Your task to perform on an android device: Empty the shopping cart on ebay.com. Add "sony triple a" to the cart on ebay.com Image 0: 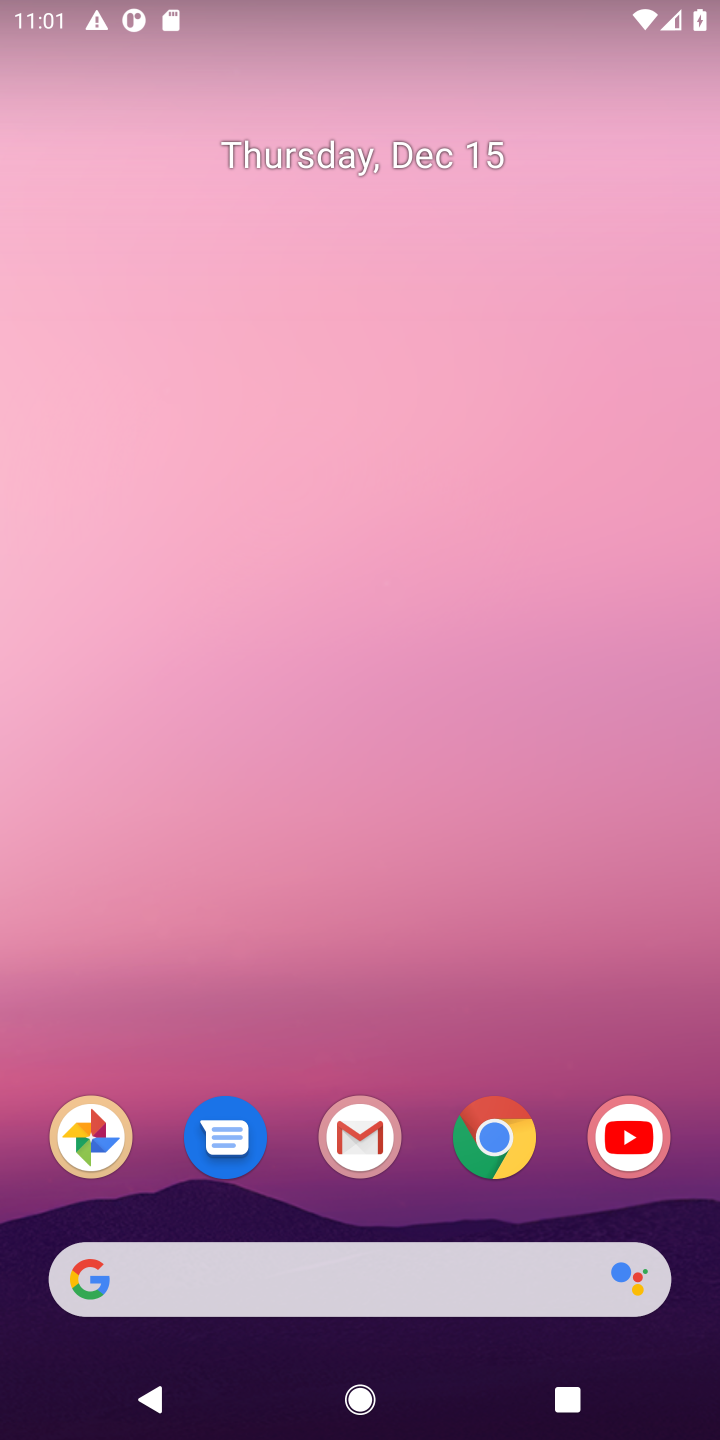
Step 0: drag from (311, 1134) to (215, 612)
Your task to perform on an android device: Empty the shopping cart on ebay.com. Add "sony triple a" to the cart on ebay.com Image 1: 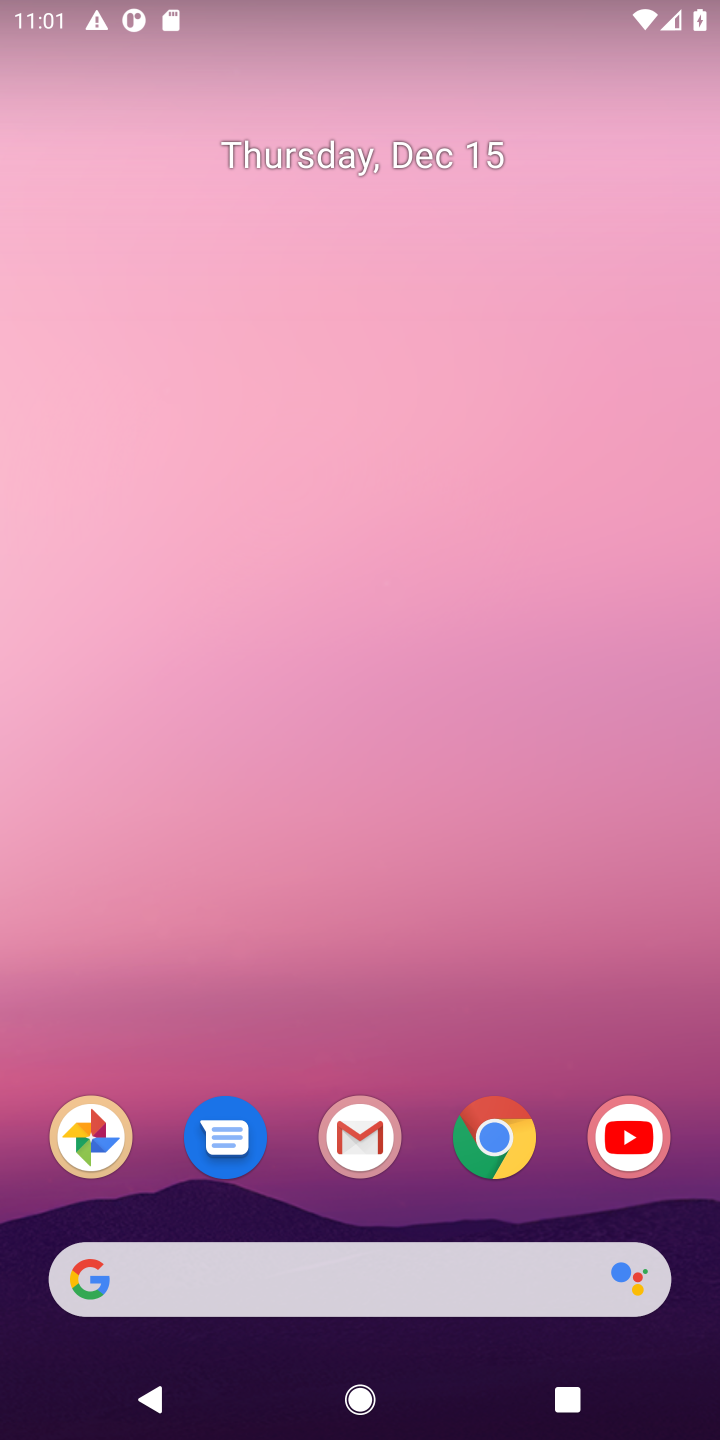
Step 1: drag from (367, 1238) to (338, 457)
Your task to perform on an android device: Empty the shopping cart on ebay.com. Add "sony triple a" to the cart on ebay.com Image 2: 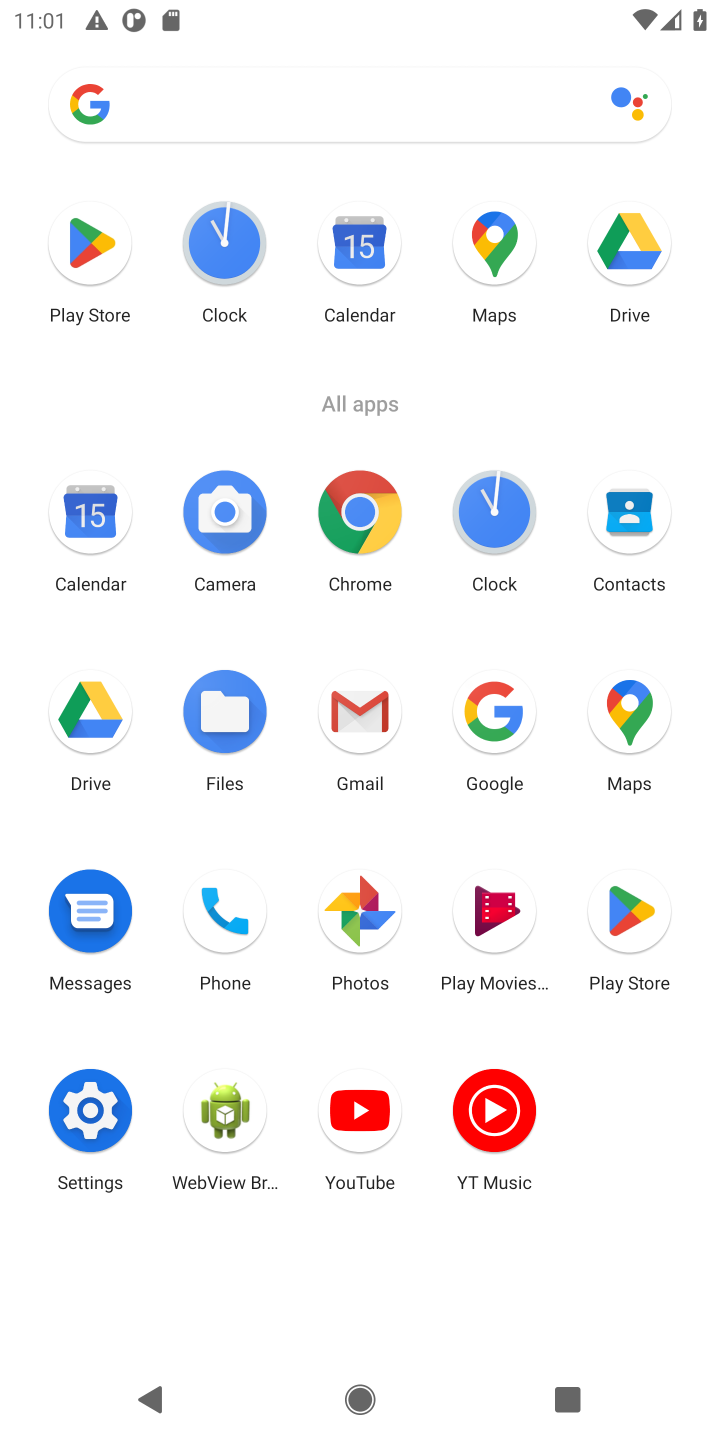
Step 2: click (491, 725)
Your task to perform on an android device: Empty the shopping cart on ebay.com. Add "sony triple a" to the cart on ebay.com Image 3: 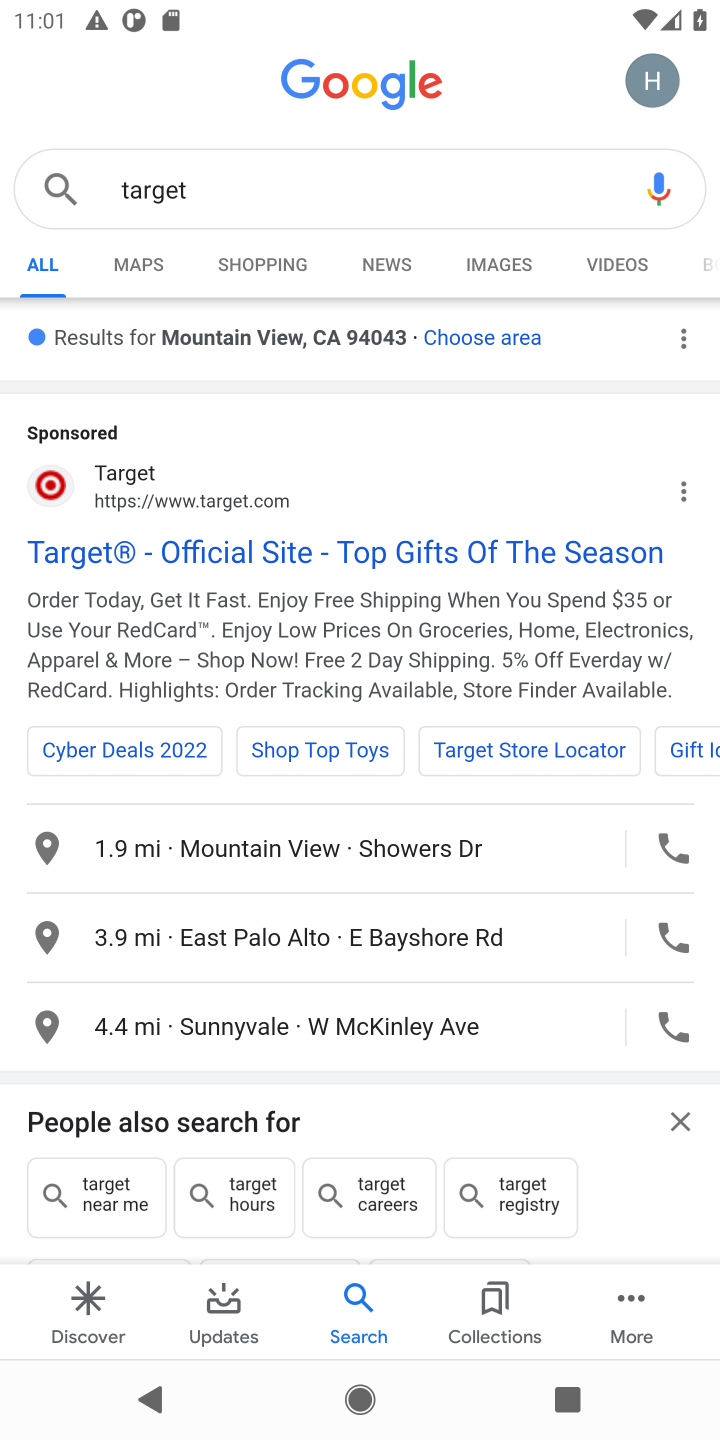
Step 3: click (159, 199)
Your task to perform on an android device: Empty the shopping cart on ebay.com. Add "sony triple a" to the cart on ebay.com Image 4: 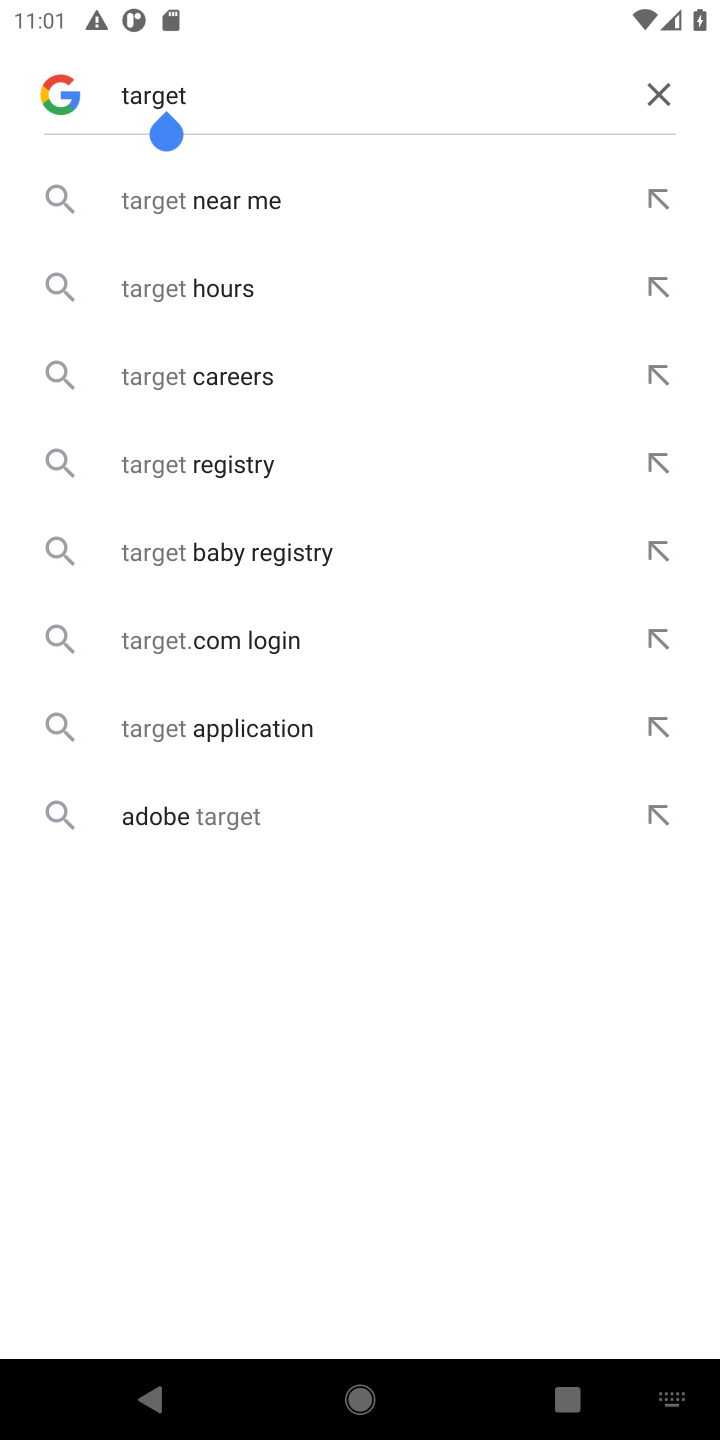
Step 4: click (662, 99)
Your task to perform on an android device: Empty the shopping cart on ebay.com. Add "sony triple a" to the cart on ebay.com Image 5: 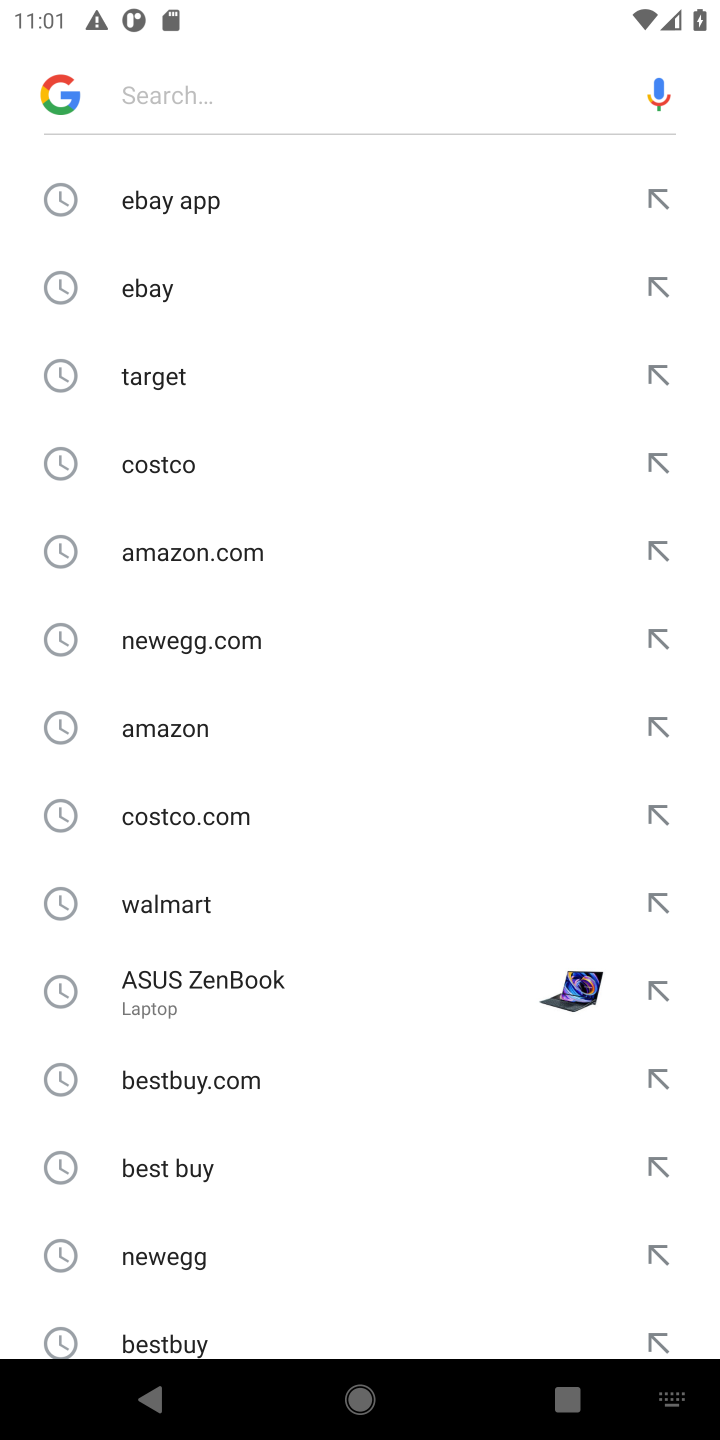
Step 5: click (146, 291)
Your task to perform on an android device: Empty the shopping cart on ebay.com. Add "sony triple a" to the cart on ebay.com Image 6: 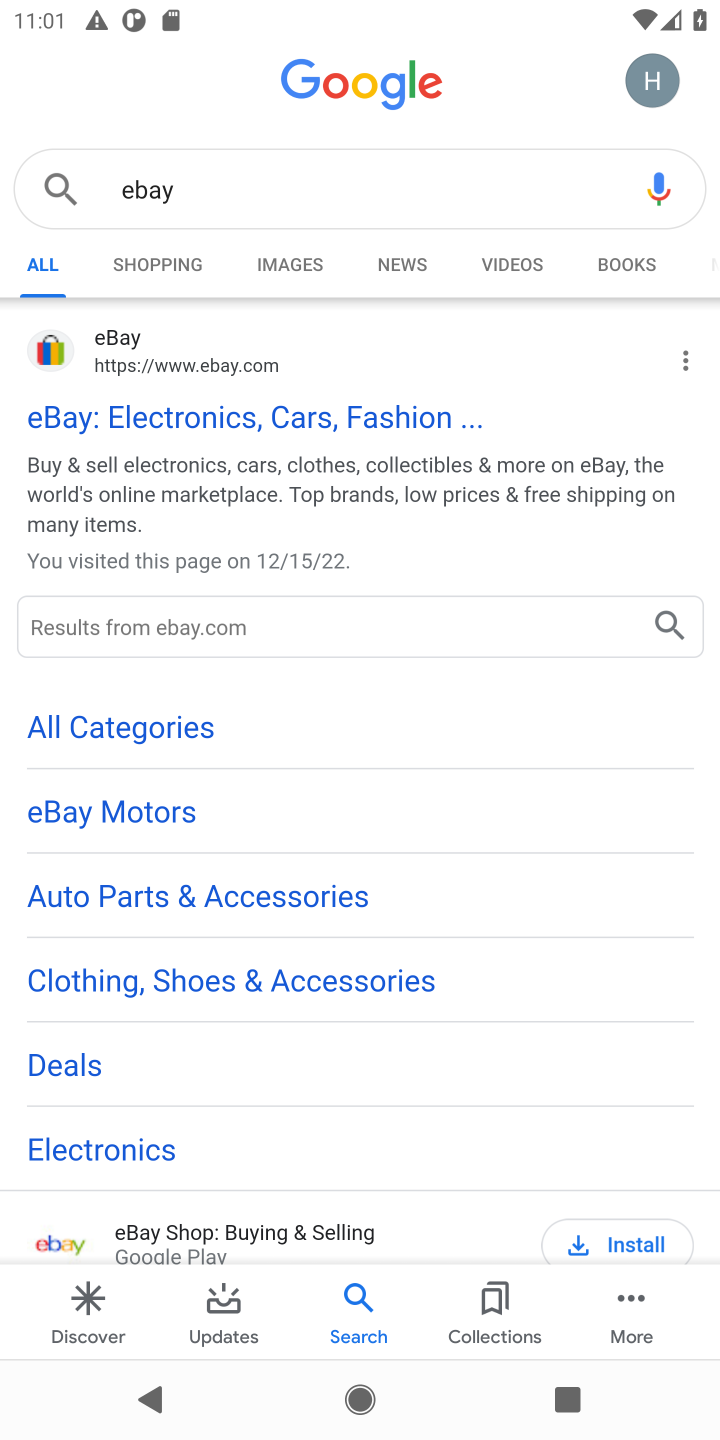
Step 6: click (133, 420)
Your task to perform on an android device: Empty the shopping cart on ebay.com. Add "sony triple a" to the cart on ebay.com Image 7: 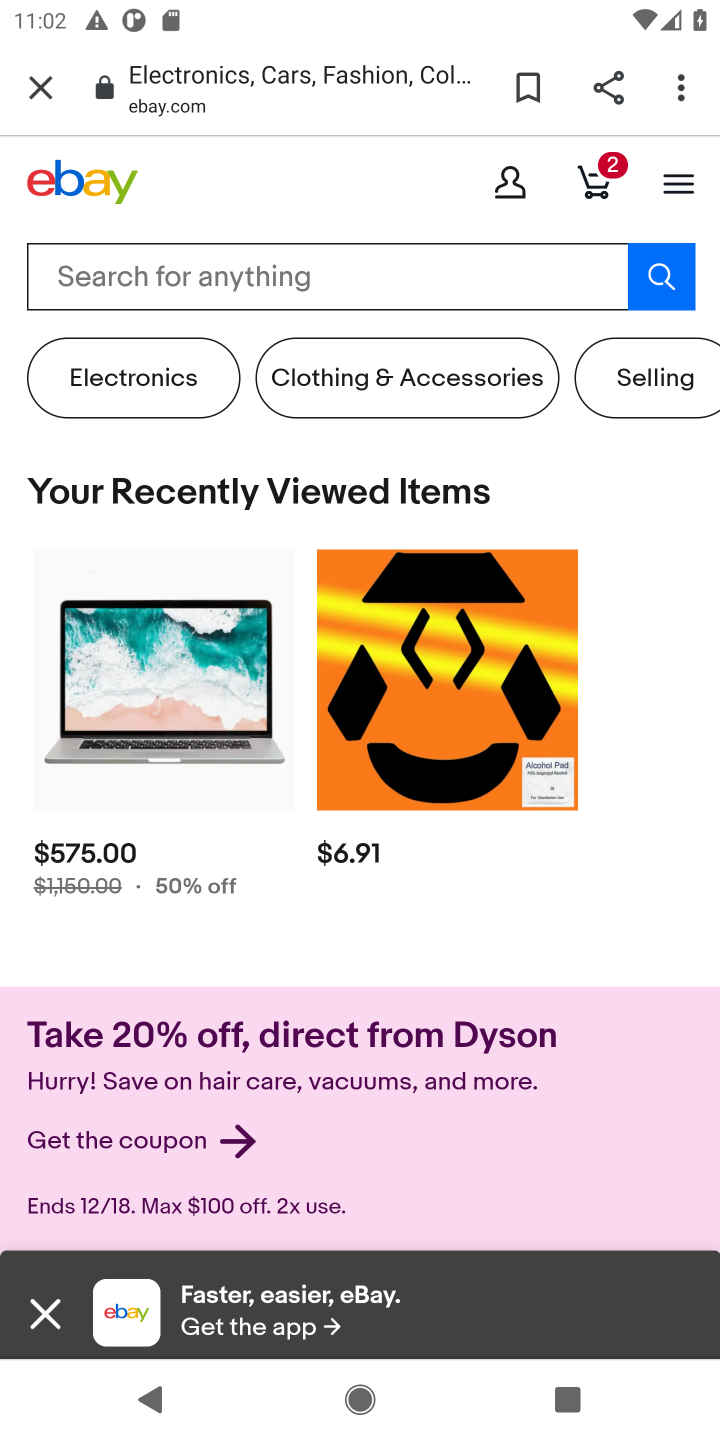
Step 7: click (115, 277)
Your task to perform on an android device: Empty the shopping cart on ebay.com. Add "sony triple a" to the cart on ebay.com Image 8: 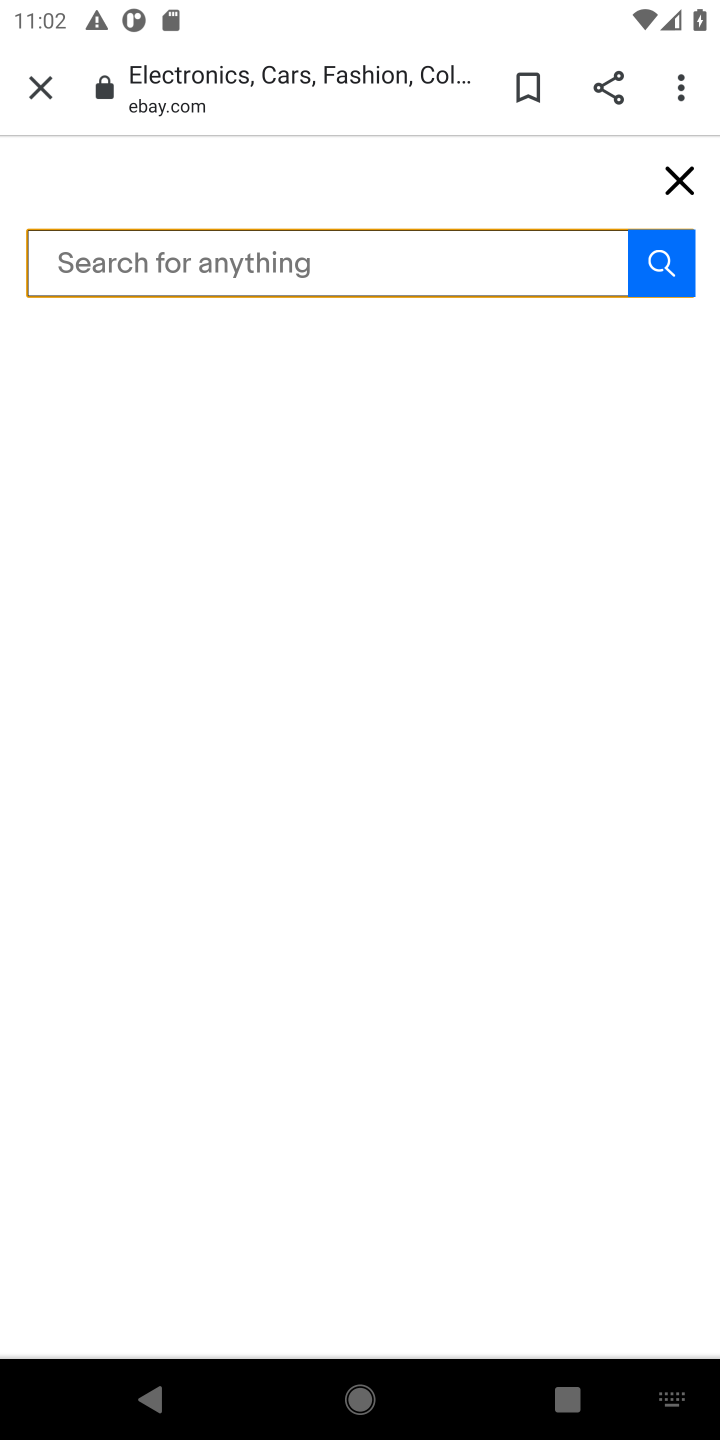
Step 8: type "sony triple a"
Your task to perform on an android device: Empty the shopping cart on ebay.com. Add "sony triple a" to the cart on ebay.com Image 9: 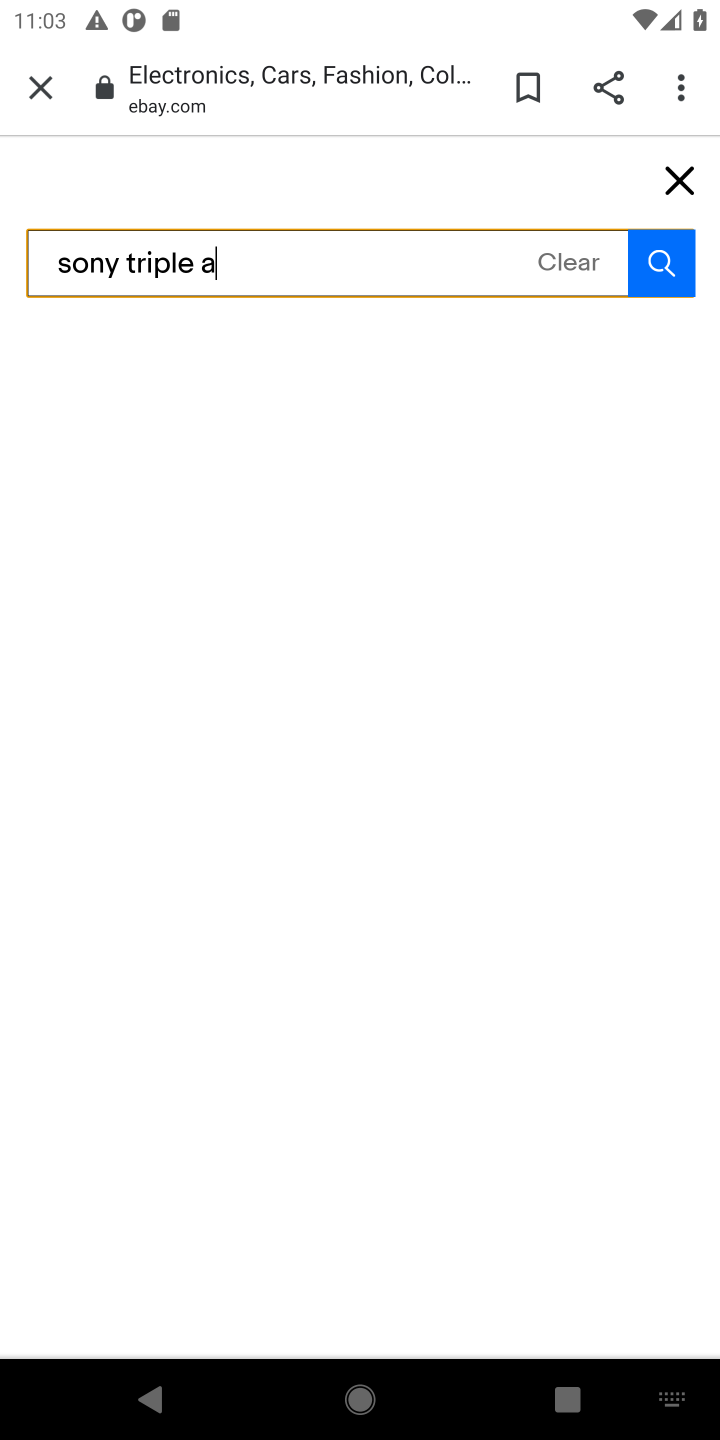
Step 9: click (660, 255)
Your task to perform on an android device: Empty the shopping cart on ebay.com. Add "sony triple a" to the cart on ebay.com Image 10: 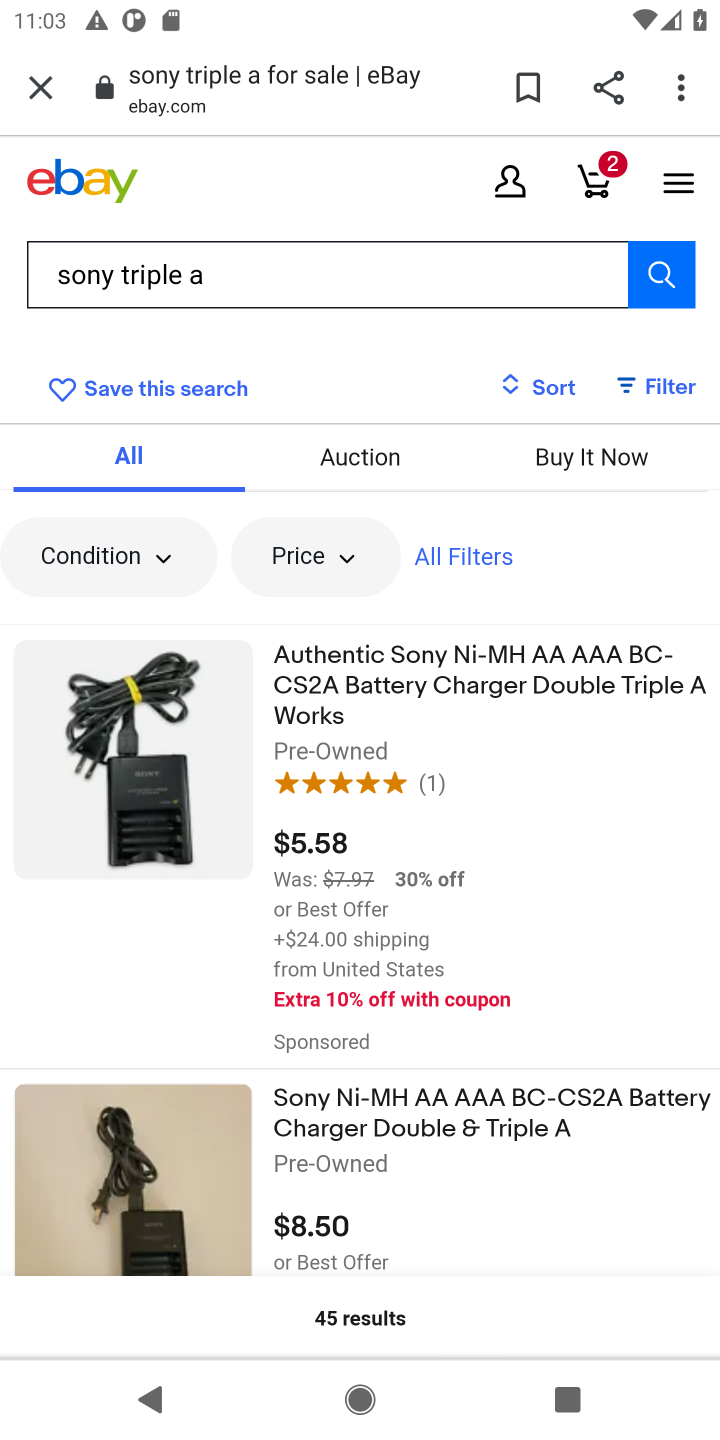
Step 10: click (321, 693)
Your task to perform on an android device: Empty the shopping cart on ebay.com. Add "sony triple a" to the cart on ebay.com Image 11: 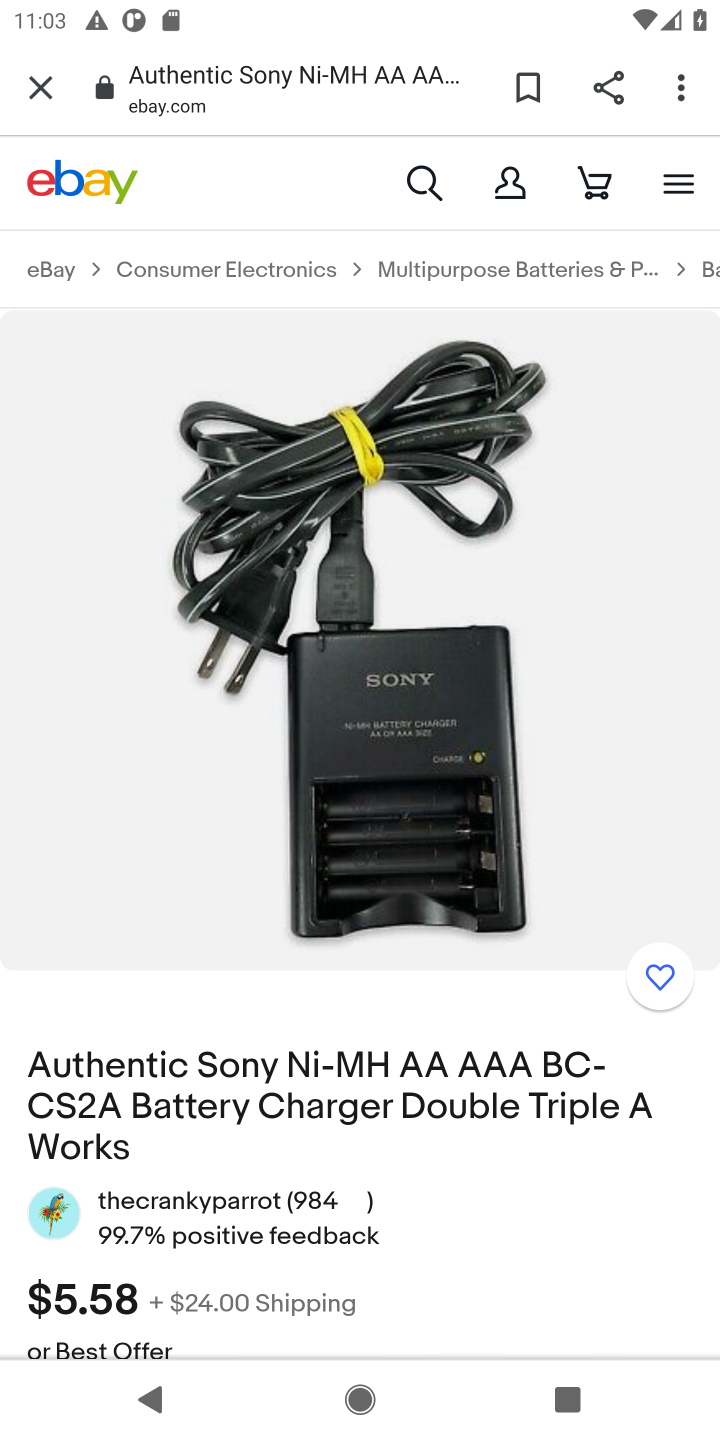
Step 11: drag from (445, 1195) to (371, 615)
Your task to perform on an android device: Empty the shopping cart on ebay.com. Add "sony triple a" to the cart on ebay.com Image 12: 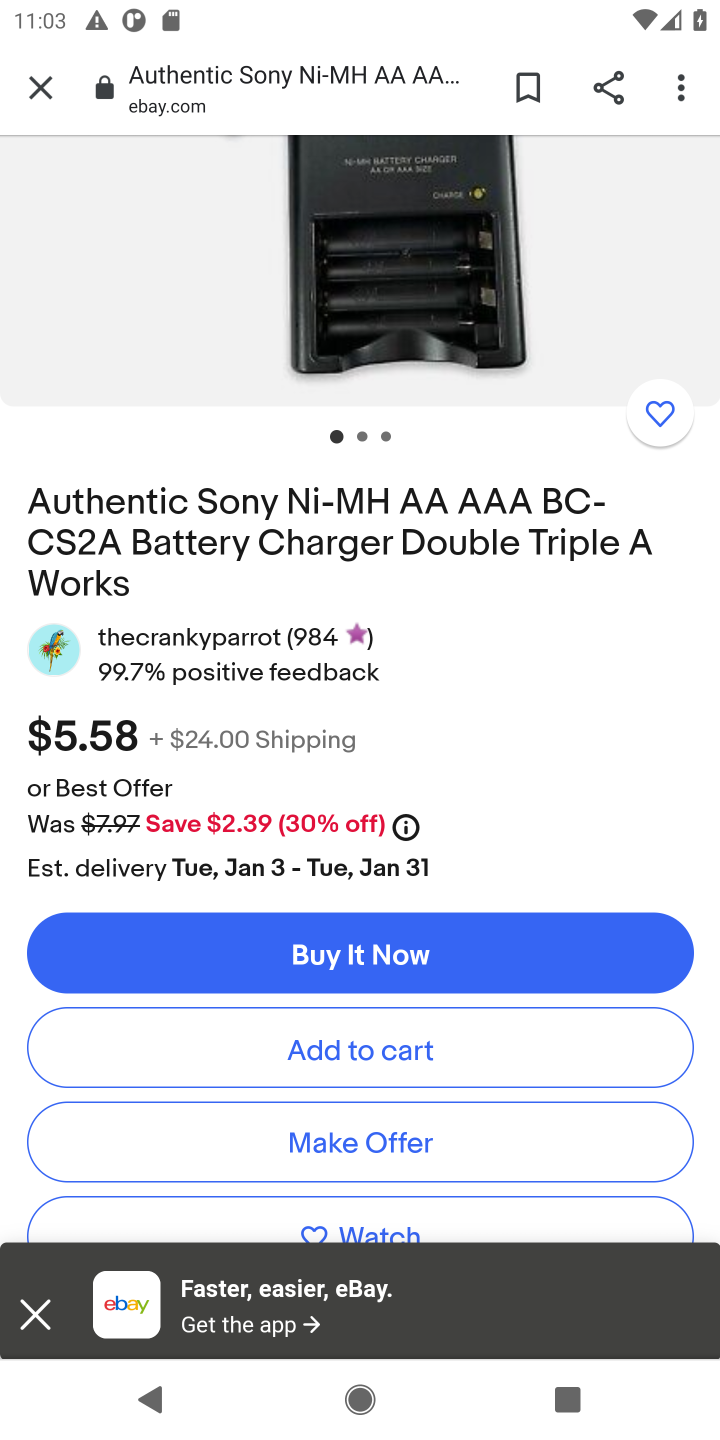
Step 12: click (405, 1048)
Your task to perform on an android device: Empty the shopping cart on ebay.com. Add "sony triple a" to the cart on ebay.com Image 13: 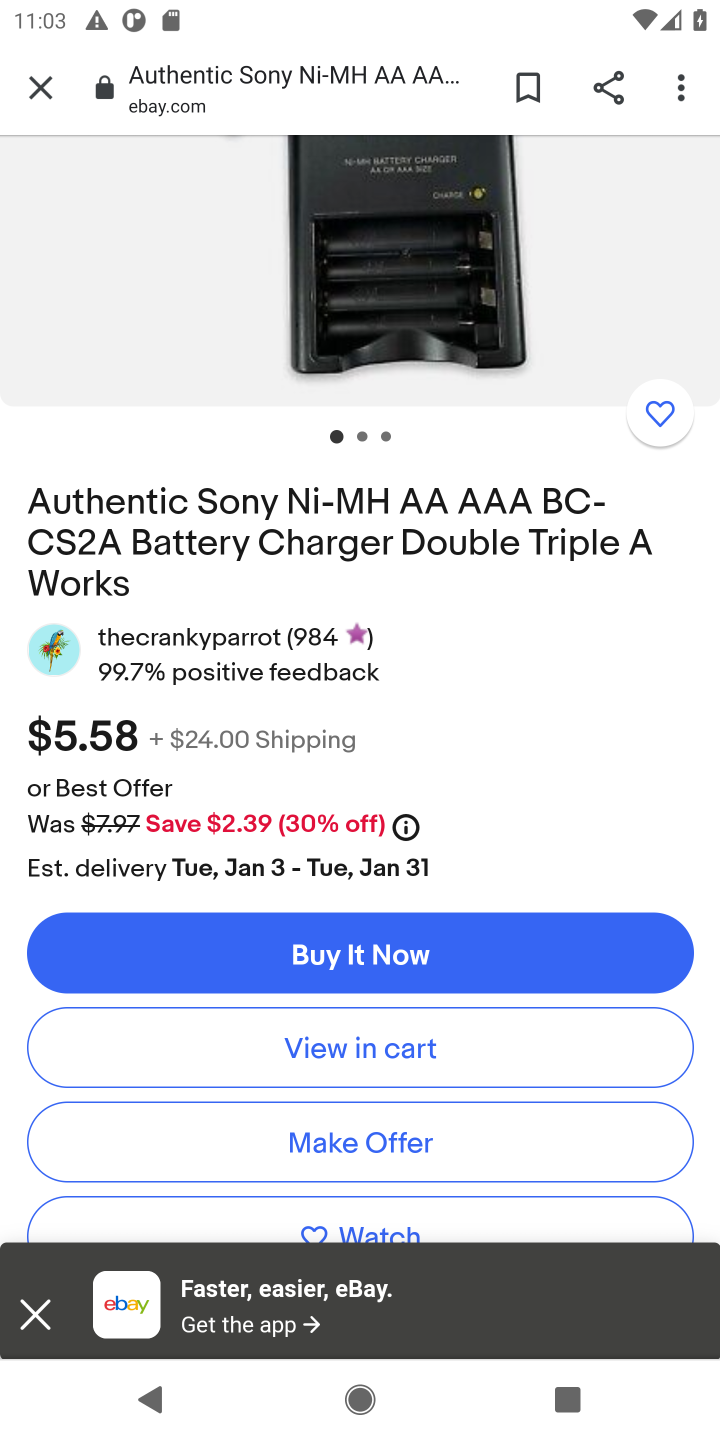
Step 13: task complete